Your task to perform on an android device: turn off smart reply in the gmail app Image 0: 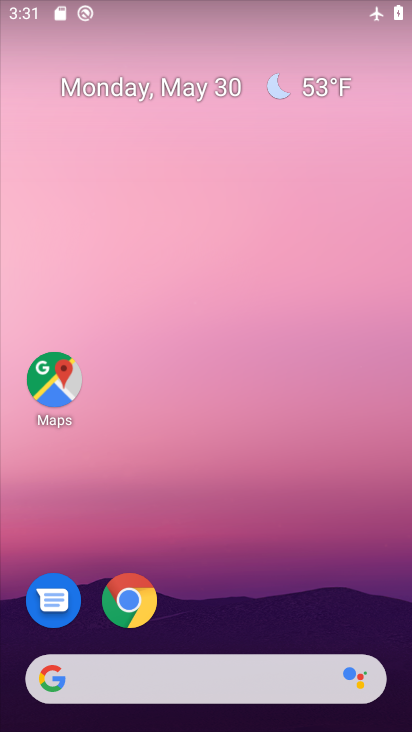
Step 0: drag from (303, 490) to (396, 92)
Your task to perform on an android device: turn off smart reply in the gmail app Image 1: 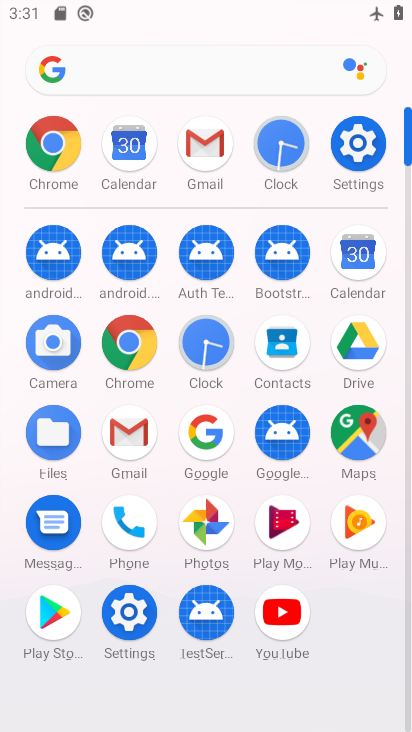
Step 1: click (182, 145)
Your task to perform on an android device: turn off smart reply in the gmail app Image 2: 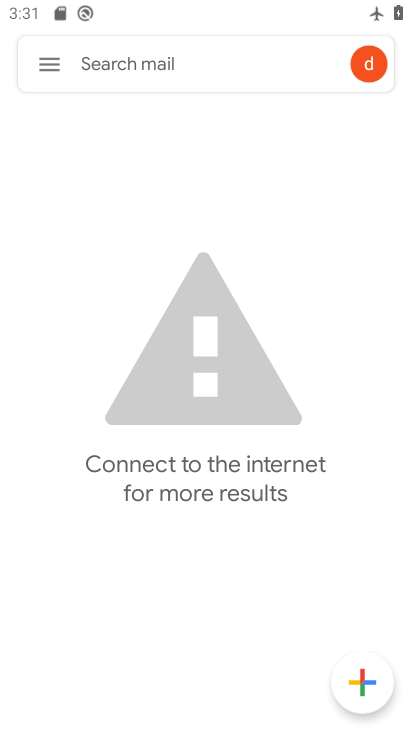
Step 2: click (40, 68)
Your task to perform on an android device: turn off smart reply in the gmail app Image 3: 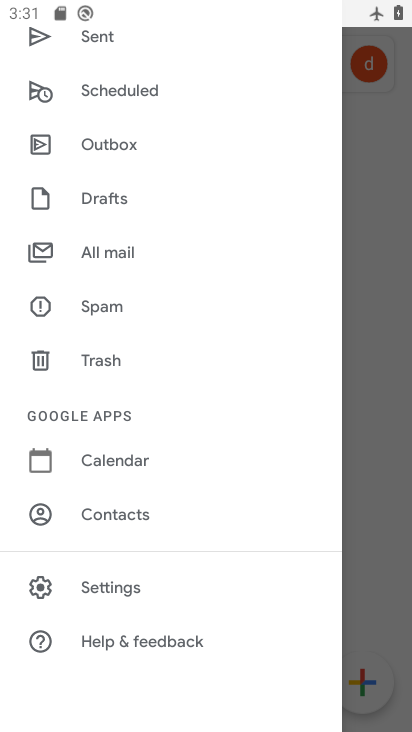
Step 3: click (109, 590)
Your task to perform on an android device: turn off smart reply in the gmail app Image 4: 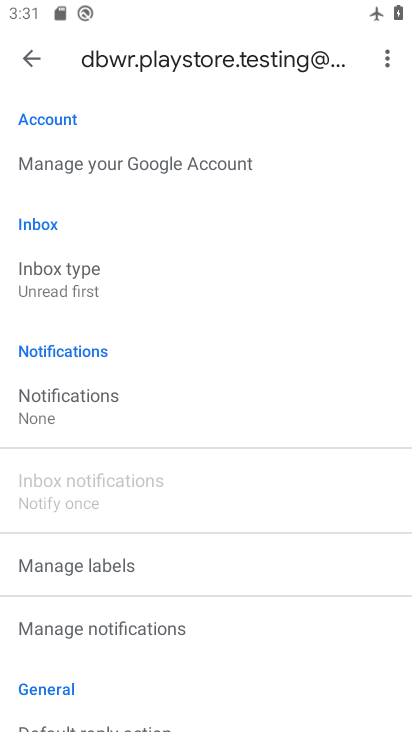
Step 4: drag from (47, 556) to (205, 147)
Your task to perform on an android device: turn off smart reply in the gmail app Image 5: 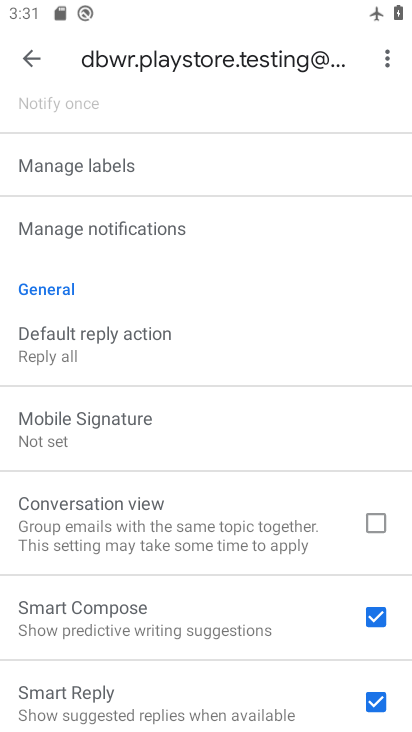
Step 5: drag from (95, 556) to (245, 167)
Your task to perform on an android device: turn off smart reply in the gmail app Image 6: 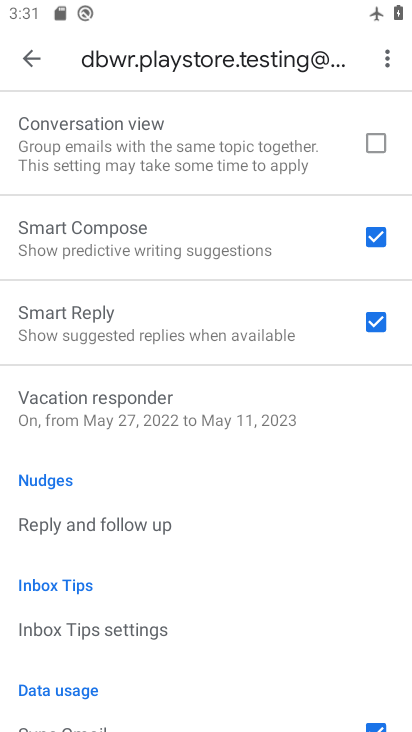
Step 6: click (367, 326)
Your task to perform on an android device: turn off smart reply in the gmail app Image 7: 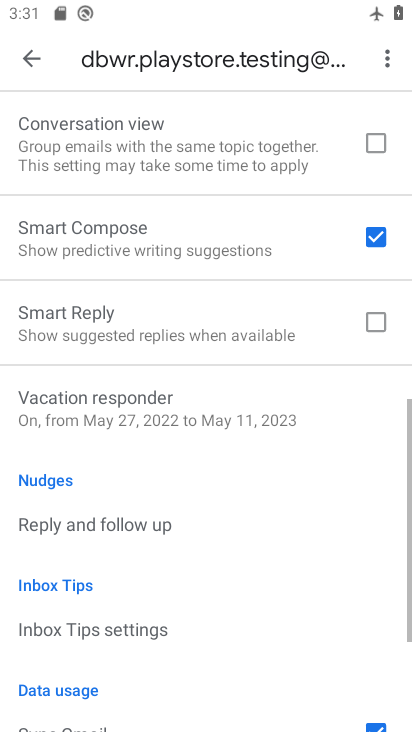
Step 7: task complete